Your task to perform on an android device: turn on translation in the chrome app Image 0: 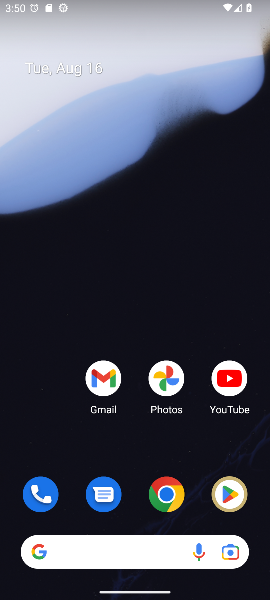
Step 0: click (168, 496)
Your task to perform on an android device: turn on translation in the chrome app Image 1: 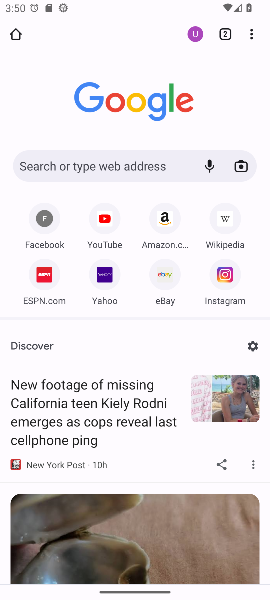
Step 1: drag from (252, 40) to (156, 314)
Your task to perform on an android device: turn on translation in the chrome app Image 2: 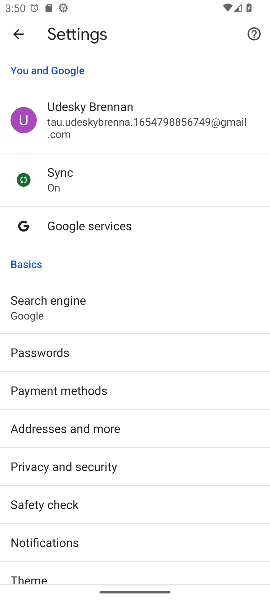
Step 2: drag from (100, 509) to (116, 23)
Your task to perform on an android device: turn on translation in the chrome app Image 3: 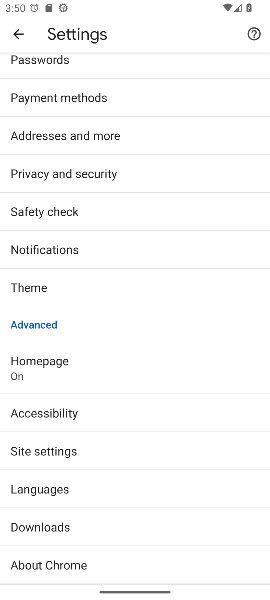
Step 3: click (36, 494)
Your task to perform on an android device: turn on translation in the chrome app Image 4: 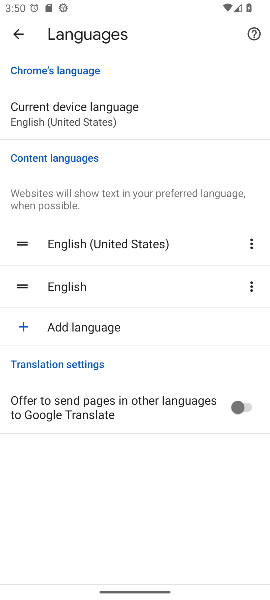
Step 4: click (246, 408)
Your task to perform on an android device: turn on translation in the chrome app Image 5: 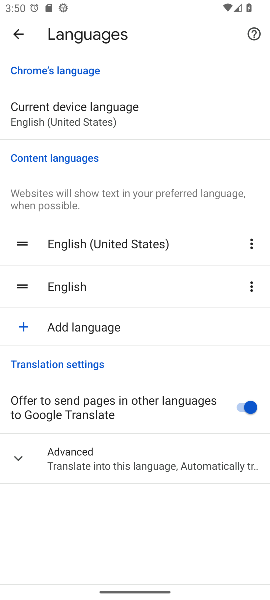
Step 5: task complete